Your task to perform on an android device: turn off picture-in-picture Image 0: 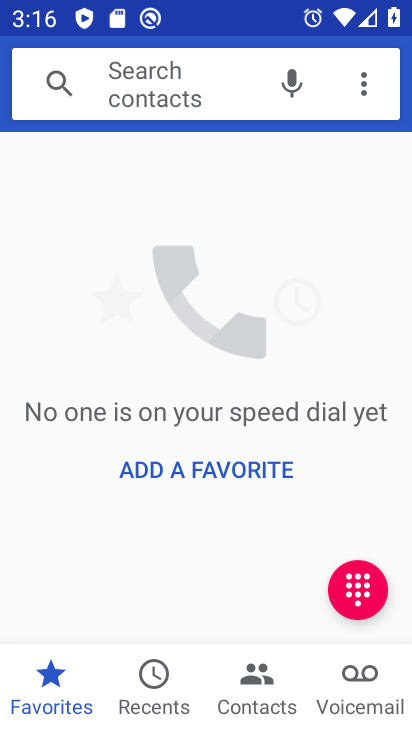
Step 0: press home button
Your task to perform on an android device: turn off picture-in-picture Image 1: 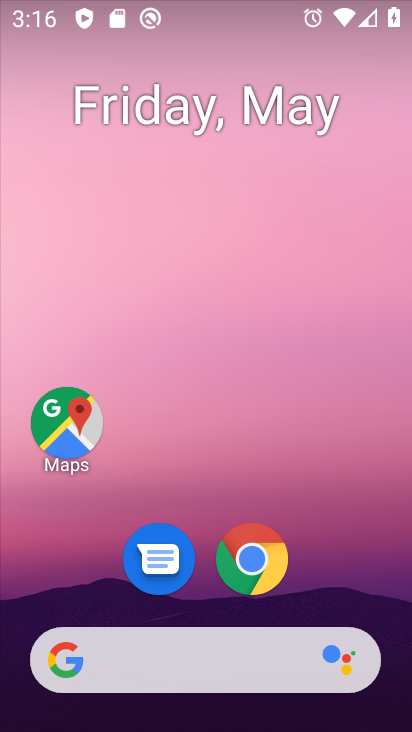
Step 1: drag from (360, 579) to (268, 93)
Your task to perform on an android device: turn off picture-in-picture Image 2: 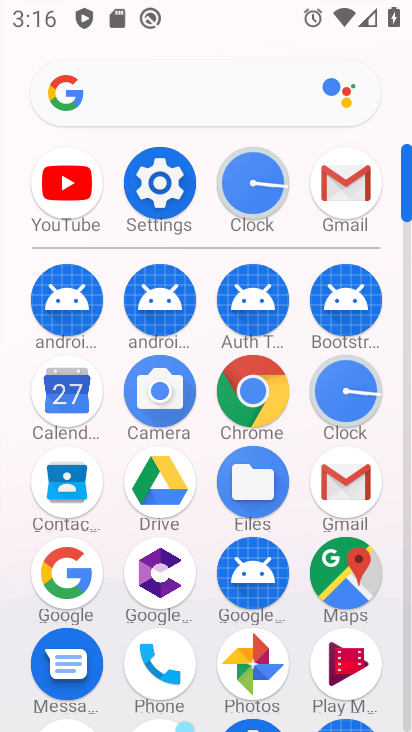
Step 2: click (174, 185)
Your task to perform on an android device: turn off picture-in-picture Image 3: 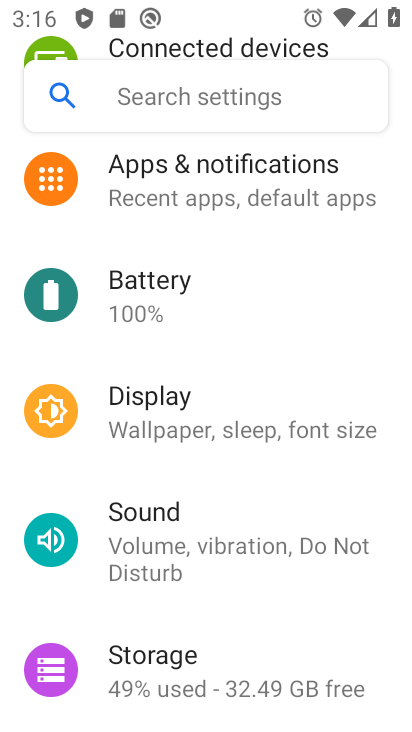
Step 3: drag from (194, 548) to (196, 214)
Your task to perform on an android device: turn off picture-in-picture Image 4: 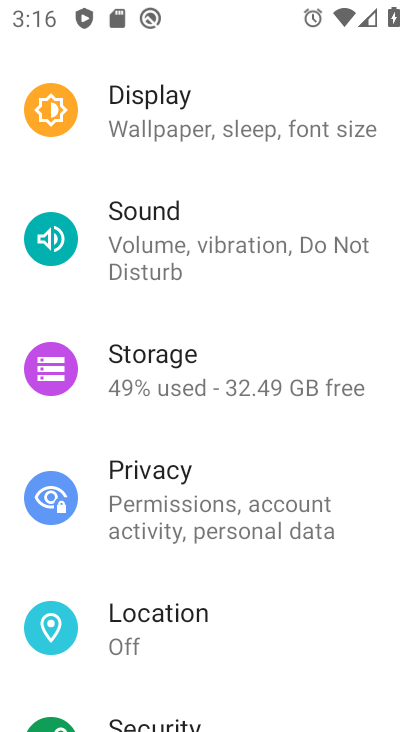
Step 4: drag from (196, 630) to (212, 326)
Your task to perform on an android device: turn off picture-in-picture Image 5: 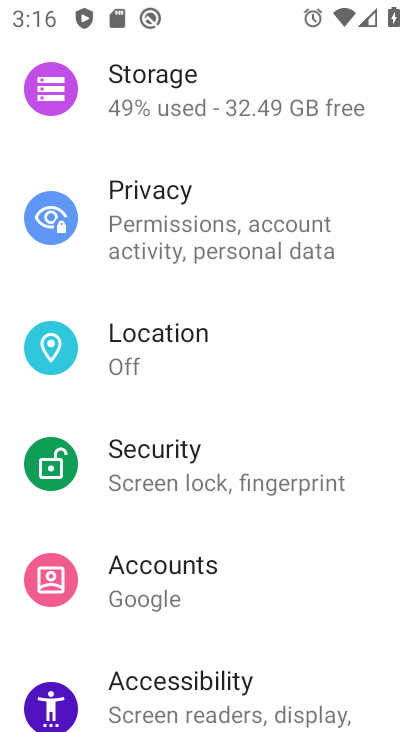
Step 5: drag from (267, 240) to (342, 659)
Your task to perform on an android device: turn off picture-in-picture Image 6: 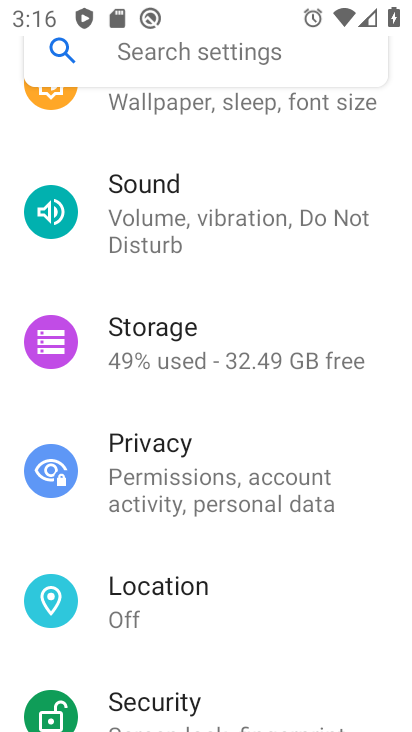
Step 6: drag from (248, 252) to (334, 679)
Your task to perform on an android device: turn off picture-in-picture Image 7: 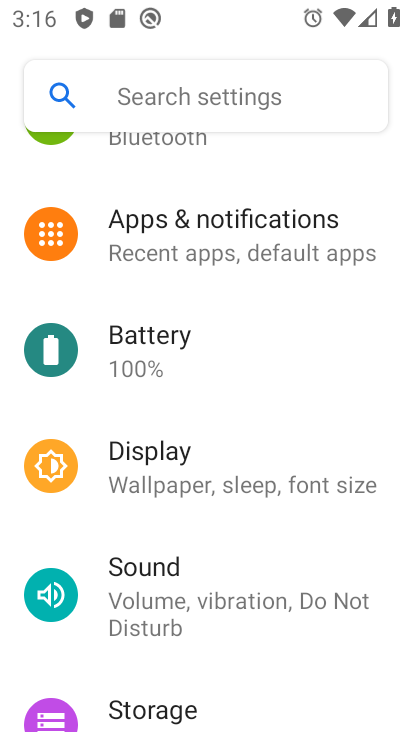
Step 7: click (279, 269)
Your task to perform on an android device: turn off picture-in-picture Image 8: 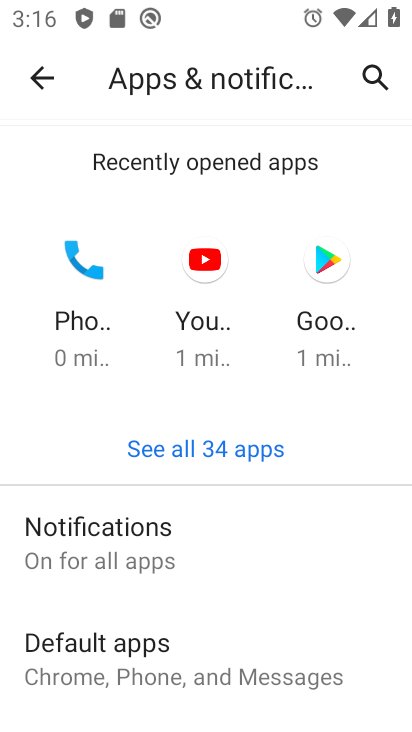
Step 8: drag from (253, 538) to (253, 244)
Your task to perform on an android device: turn off picture-in-picture Image 9: 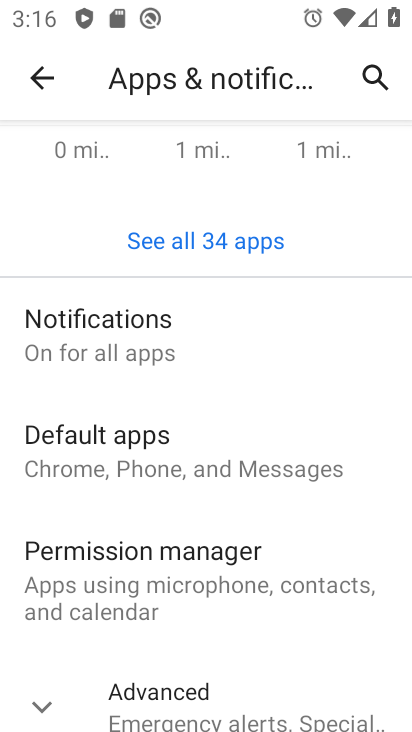
Step 9: click (172, 679)
Your task to perform on an android device: turn off picture-in-picture Image 10: 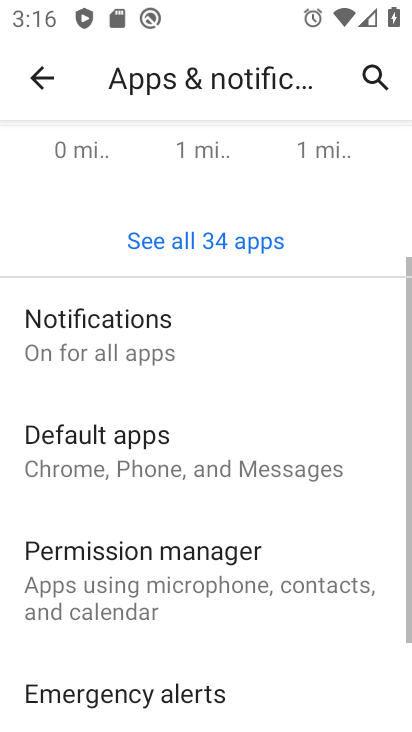
Step 10: drag from (236, 640) to (244, 257)
Your task to perform on an android device: turn off picture-in-picture Image 11: 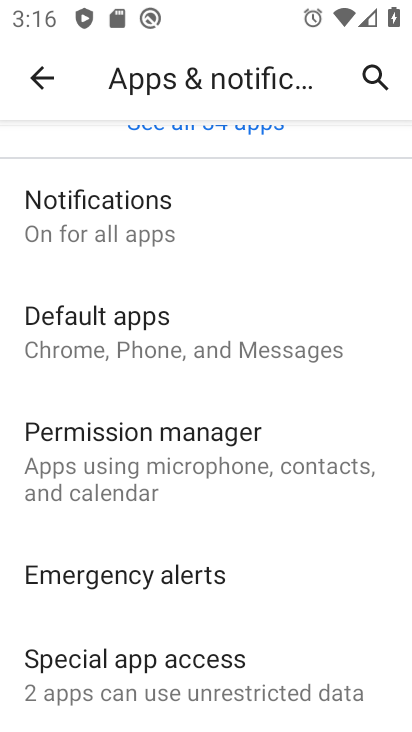
Step 11: click (231, 642)
Your task to perform on an android device: turn off picture-in-picture Image 12: 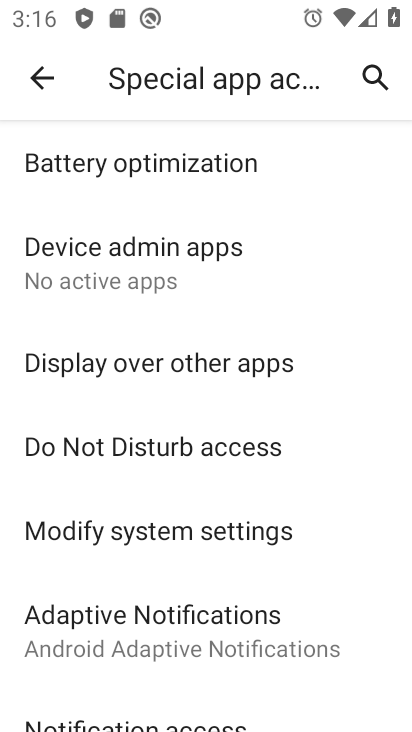
Step 12: drag from (250, 671) to (278, 232)
Your task to perform on an android device: turn off picture-in-picture Image 13: 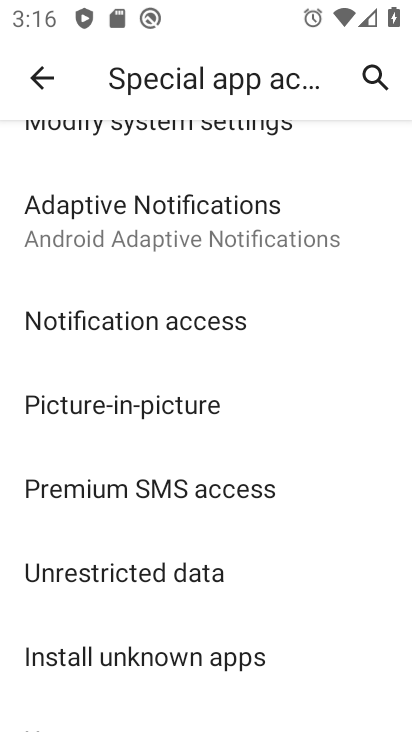
Step 13: click (286, 412)
Your task to perform on an android device: turn off picture-in-picture Image 14: 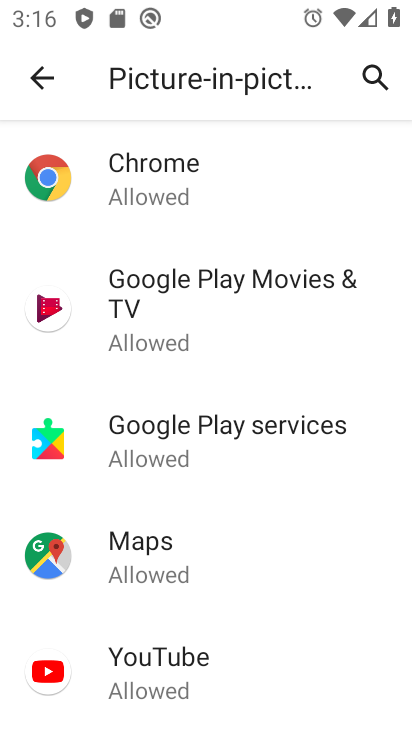
Step 14: task complete